Your task to perform on an android device: Do I have any events tomorrow? Image 0: 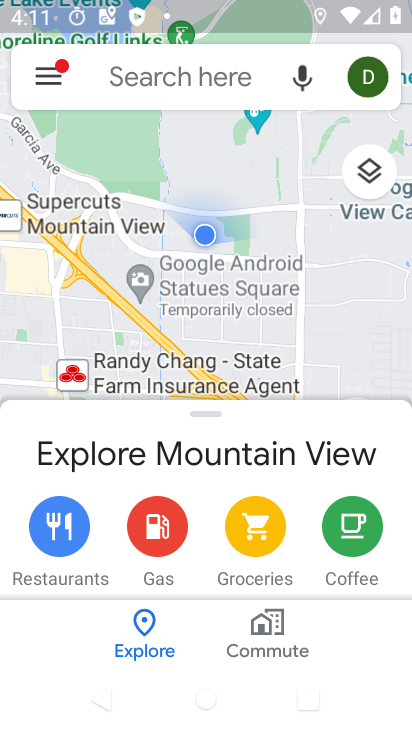
Step 0: press home button
Your task to perform on an android device: Do I have any events tomorrow? Image 1: 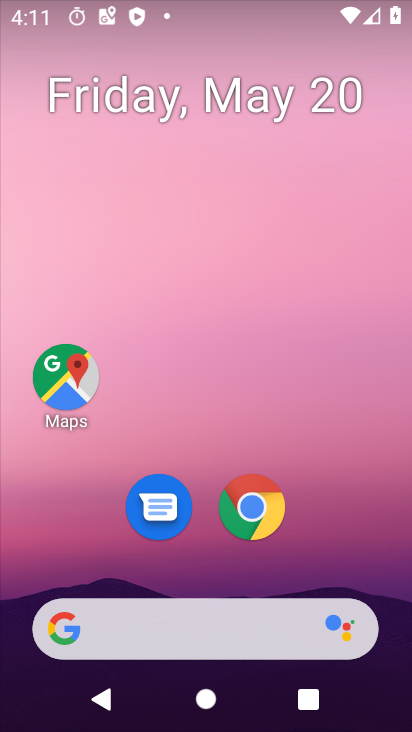
Step 1: drag from (324, 532) to (211, 134)
Your task to perform on an android device: Do I have any events tomorrow? Image 2: 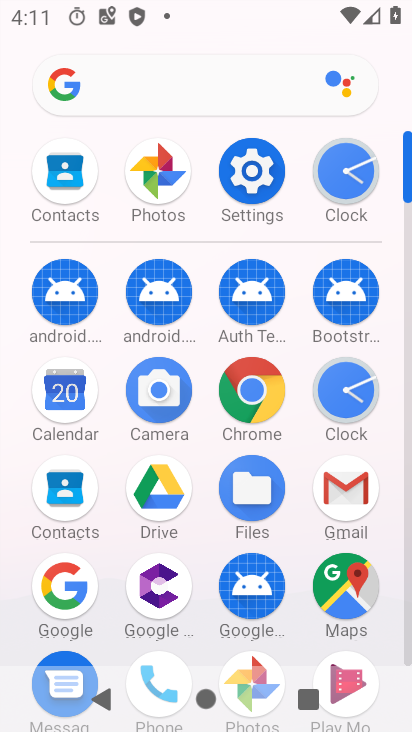
Step 2: click (66, 390)
Your task to perform on an android device: Do I have any events tomorrow? Image 3: 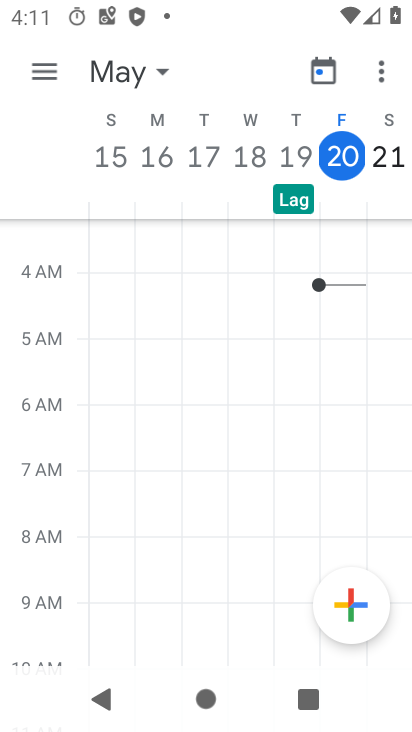
Step 3: click (320, 69)
Your task to perform on an android device: Do I have any events tomorrow? Image 4: 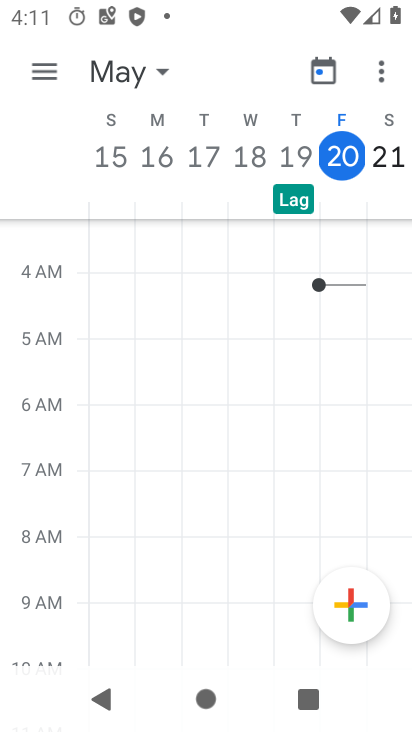
Step 4: click (170, 67)
Your task to perform on an android device: Do I have any events tomorrow? Image 5: 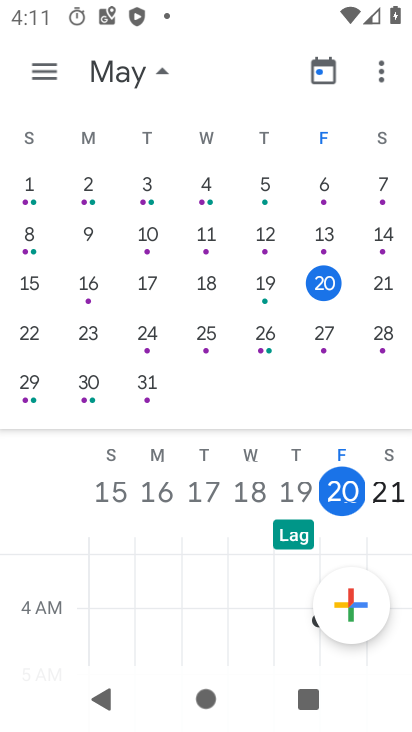
Step 5: click (389, 287)
Your task to perform on an android device: Do I have any events tomorrow? Image 6: 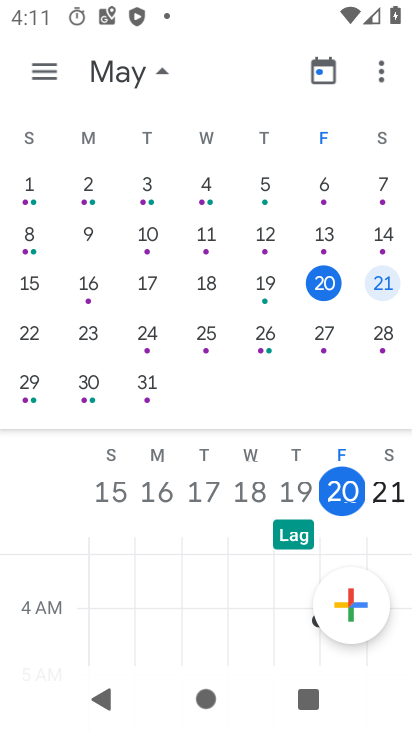
Step 6: click (59, 82)
Your task to perform on an android device: Do I have any events tomorrow? Image 7: 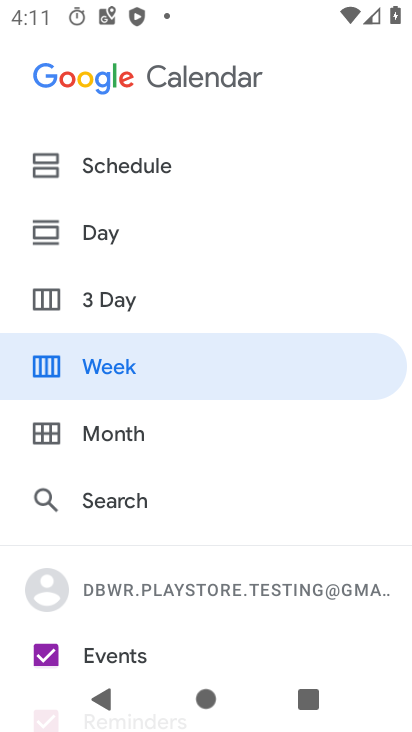
Step 7: click (137, 161)
Your task to perform on an android device: Do I have any events tomorrow? Image 8: 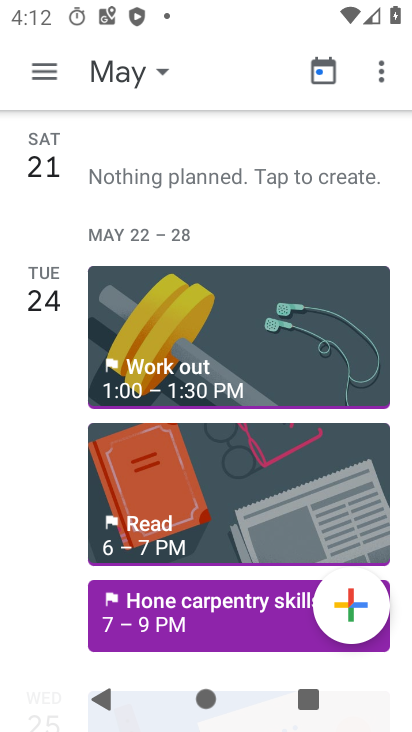
Step 8: task complete